Your task to perform on an android device: Open display settings Image 0: 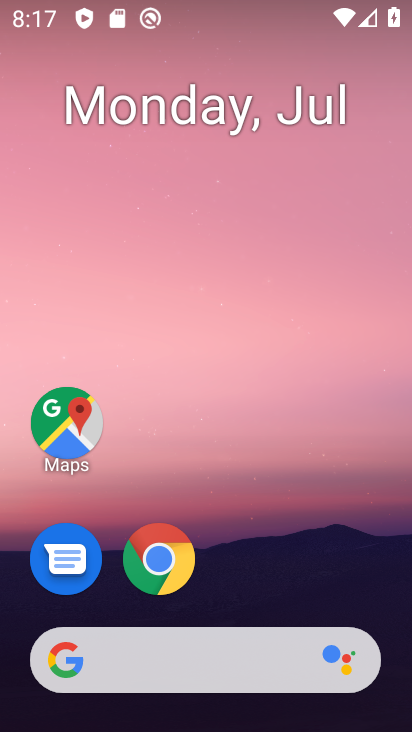
Step 0: click (290, 213)
Your task to perform on an android device: Open display settings Image 1: 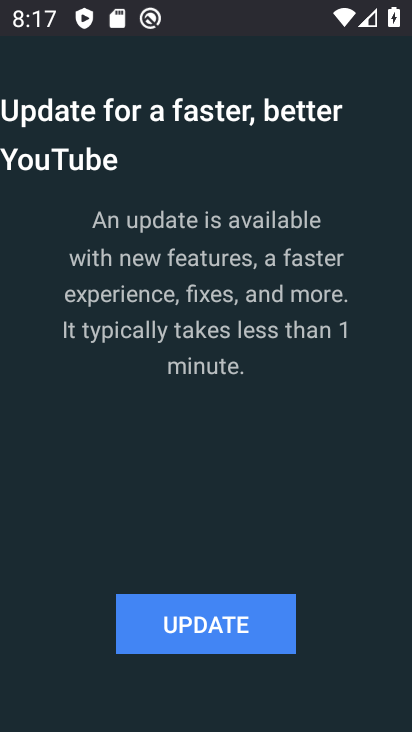
Step 1: press home button
Your task to perform on an android device: Open display settings Image 2: 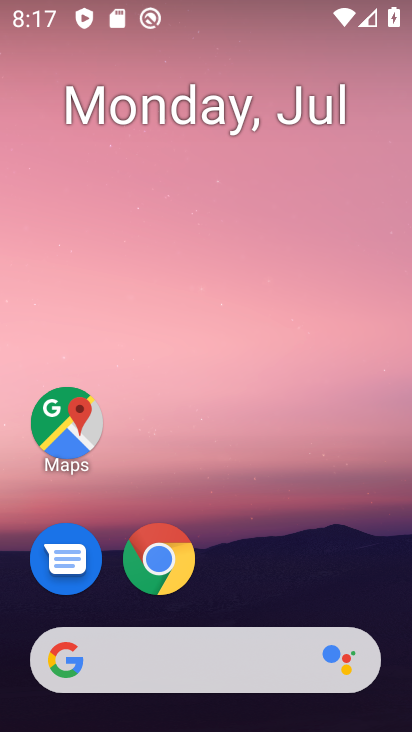
Step 2: drag from (384, 618) to (346, 167)
Your task to perform on an android device: Open display settings Image 3: 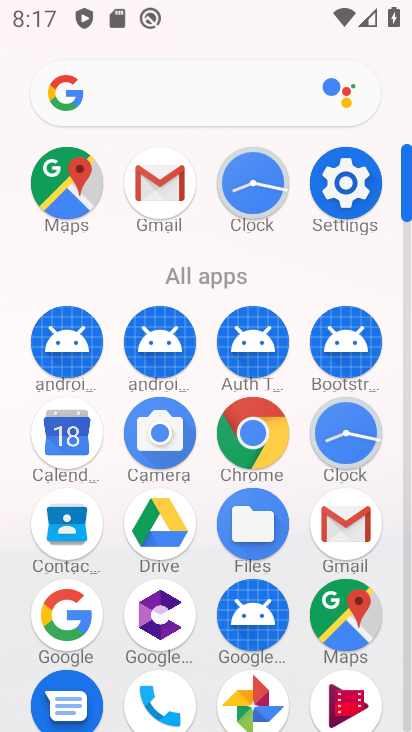
Step 3: click (342, 203)
Your task to perform on an android device: Open display settings Image 4: 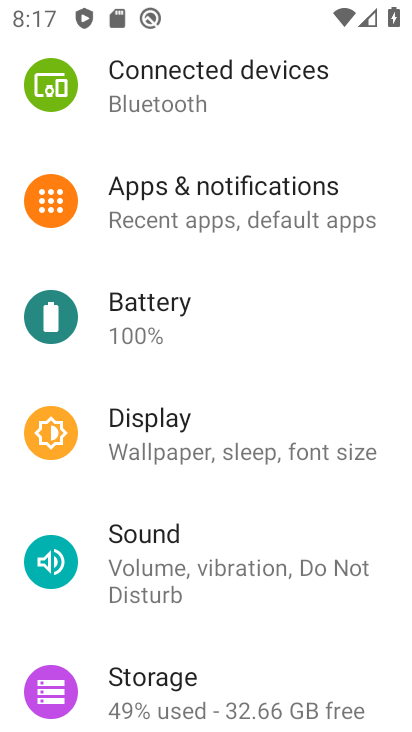
Step 4: click (328, 457)
Your task to perform on an android device: Open display settings Image 5: 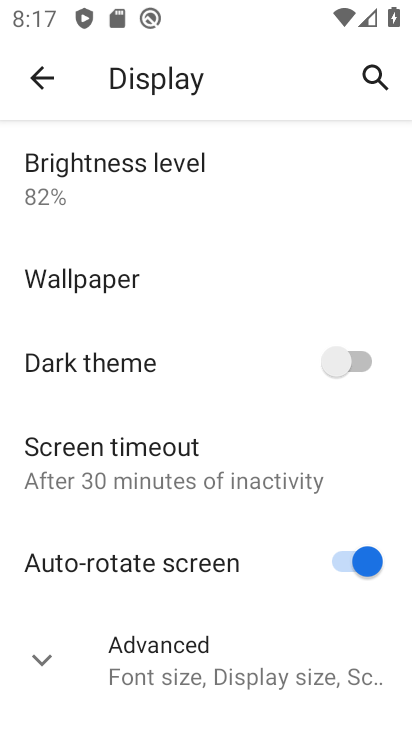
Step 5: task complete